Your task to perform on an android device: What's the weather going to be tomorrow? Image 0: 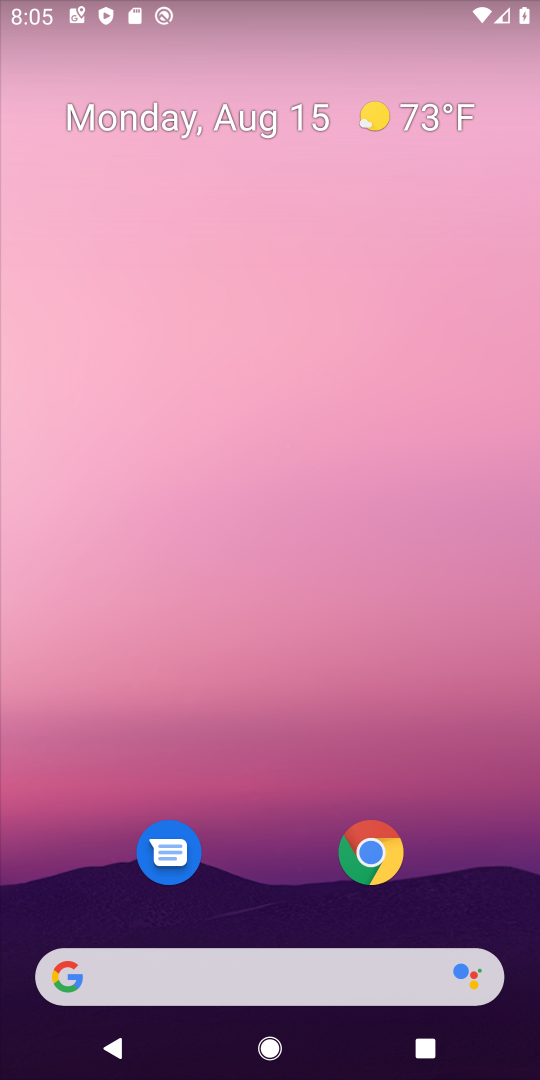
Step 0: drag from (159, 977) to (277, 181)
Your task to perform on an android device: What's the weather going to be tomorrow? Image 1: 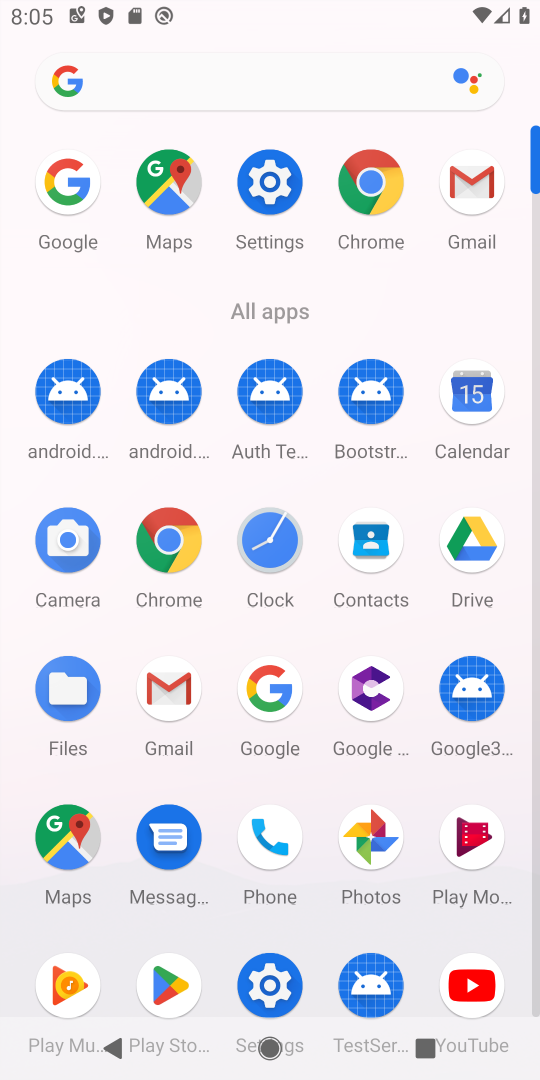
Step 1: click (262, 686)
Your task to perform on an android device: What's the weather going to be tomorrow? Image 2: 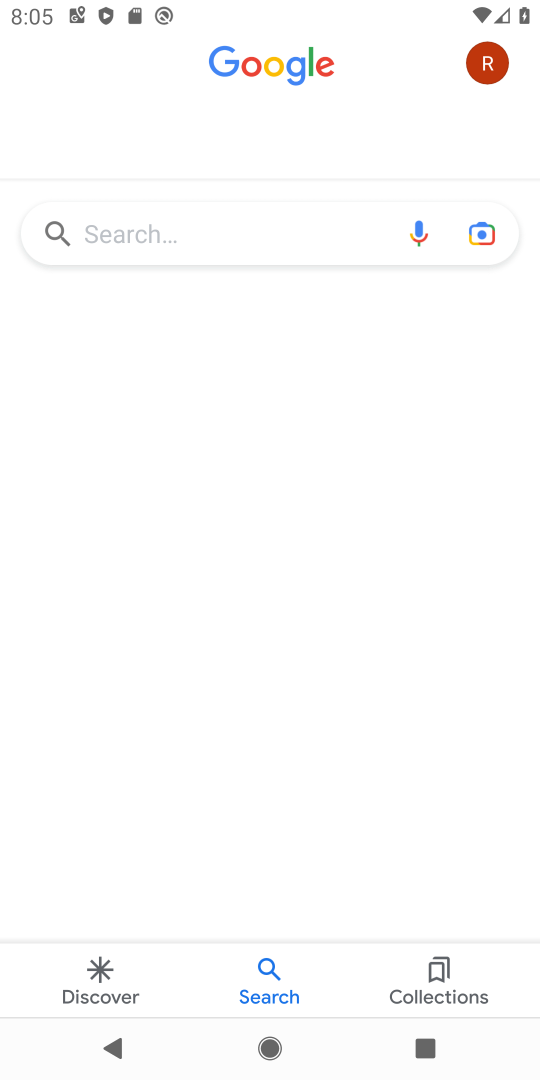
Step 2: click (288, 214)
Your task to perform on an android device: What's the weather going to be tomorrow? Image 3: 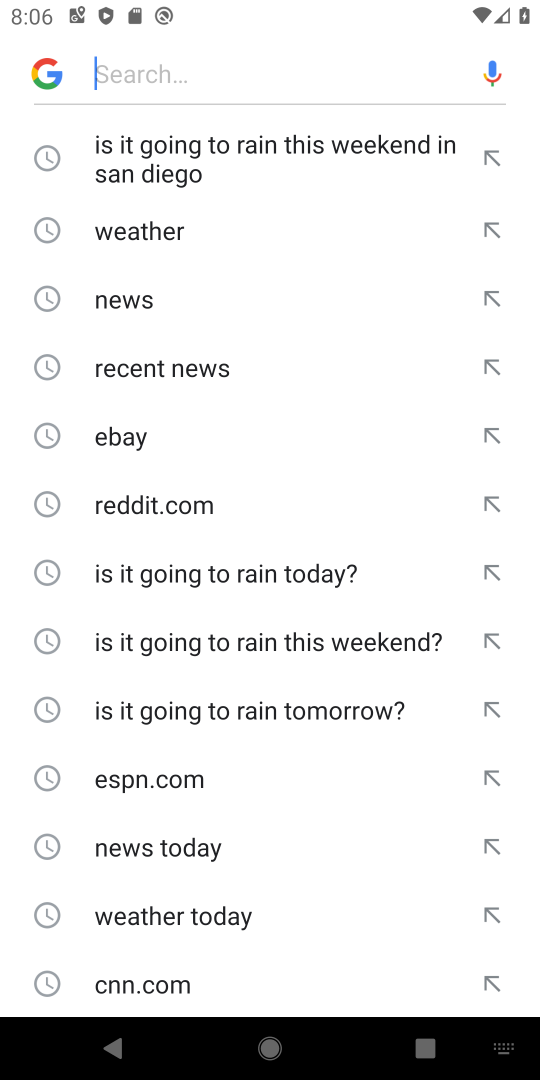
Step 3: type "What's the weather going to be tomorrow?"
Your task to perform on an android device: What's the weather going to be tomorrow? Image 4: 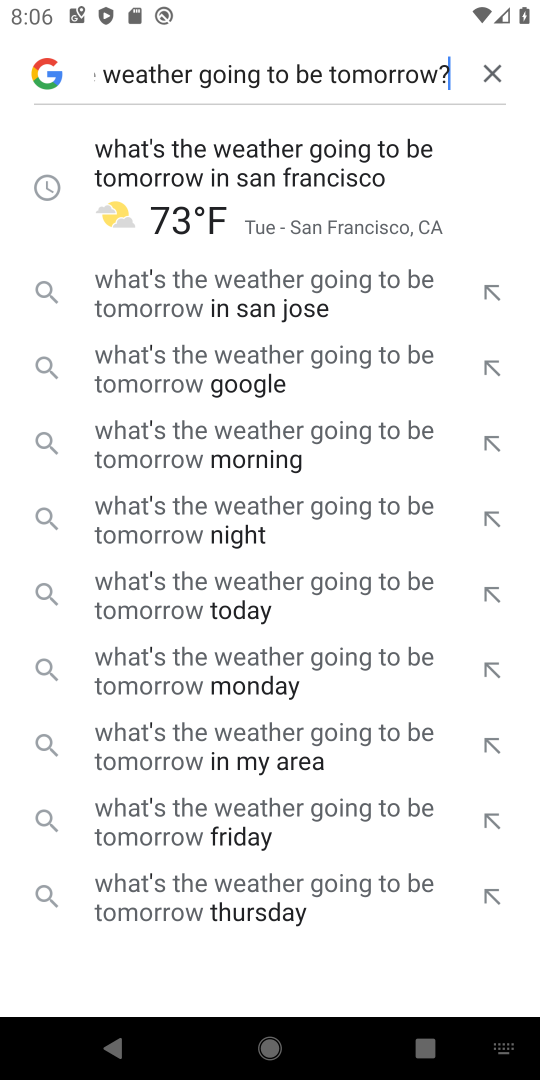
Step 4: click (166, 166)
Your task to perform on an android device: What's the weather going to be tomorrow? Image 5: 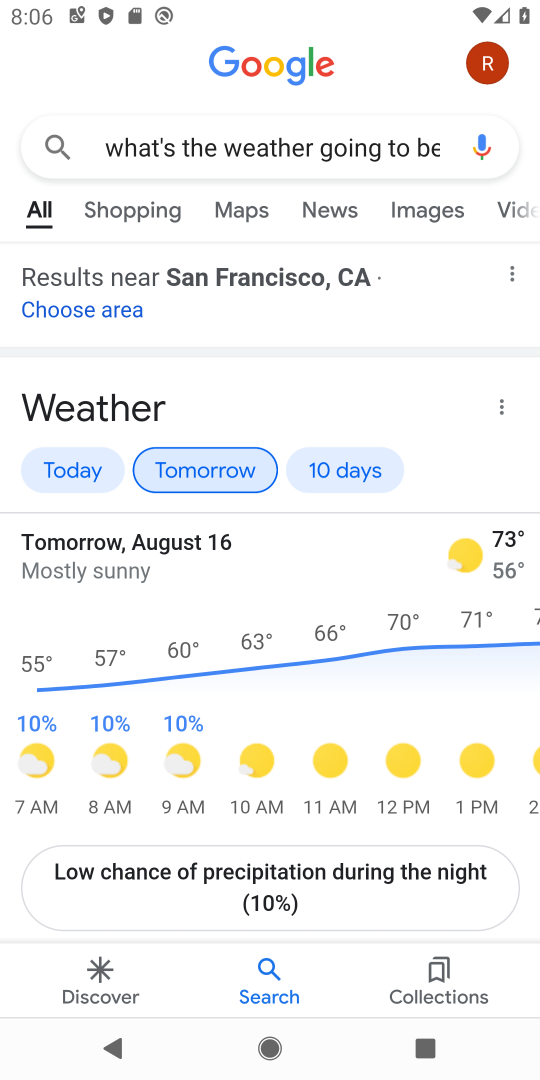
Step 5: task complete